Your task to perform on an android device: open chrome privacy settings Image 0: 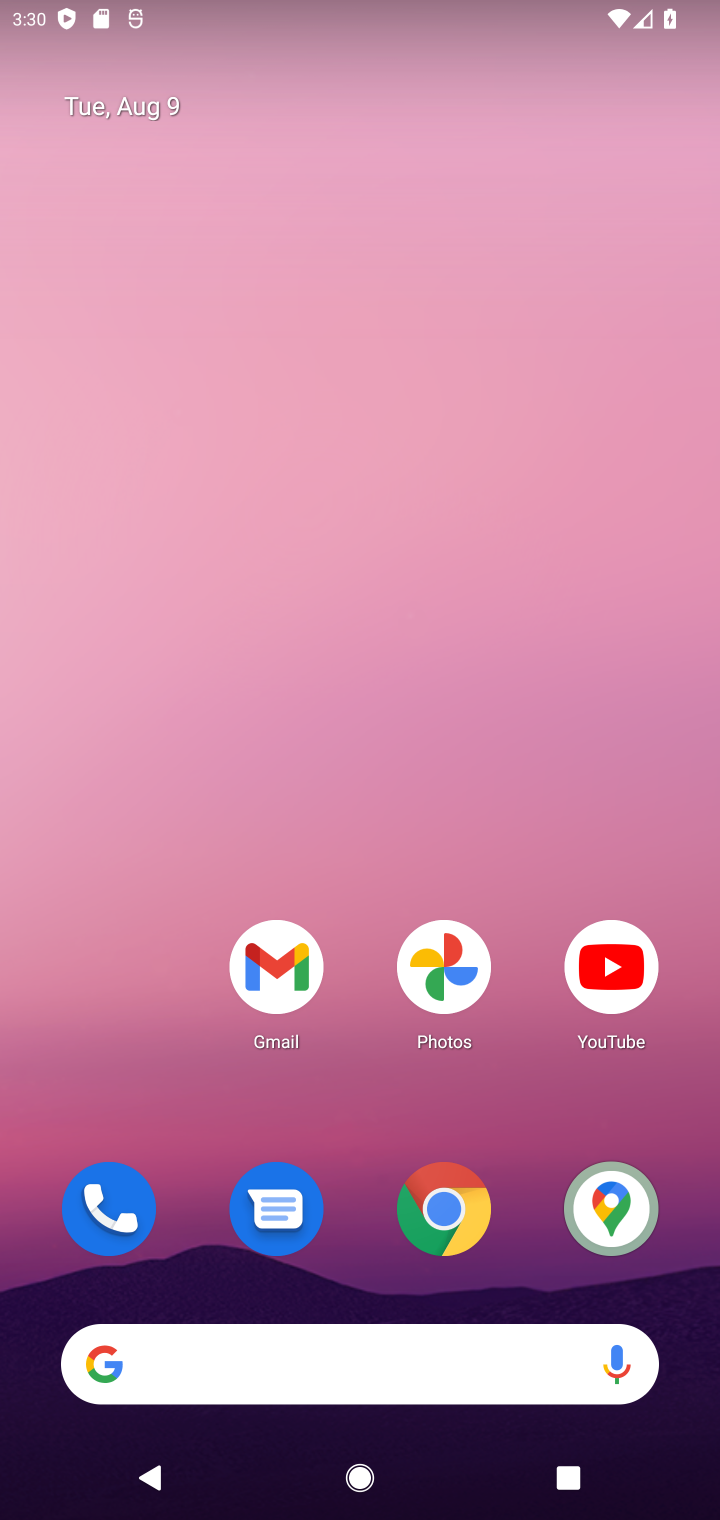
Step 0: click (434, 1204)
Your task to perform on an android device: open chrome privacy settings Image 1: 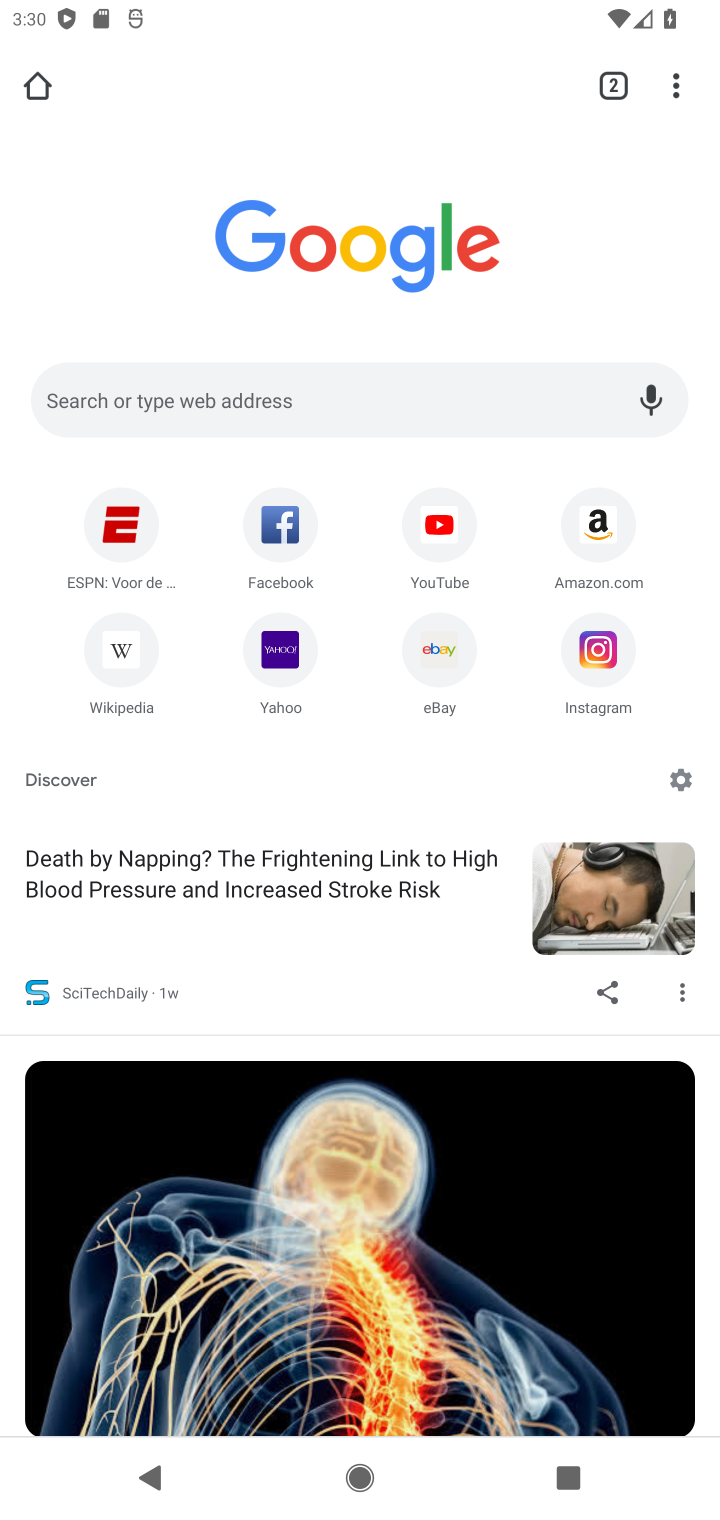
Step 1: drag from (679, 94) to (425, 707)
Your task to perform on an android device: open chrome privacy settings Image 2: 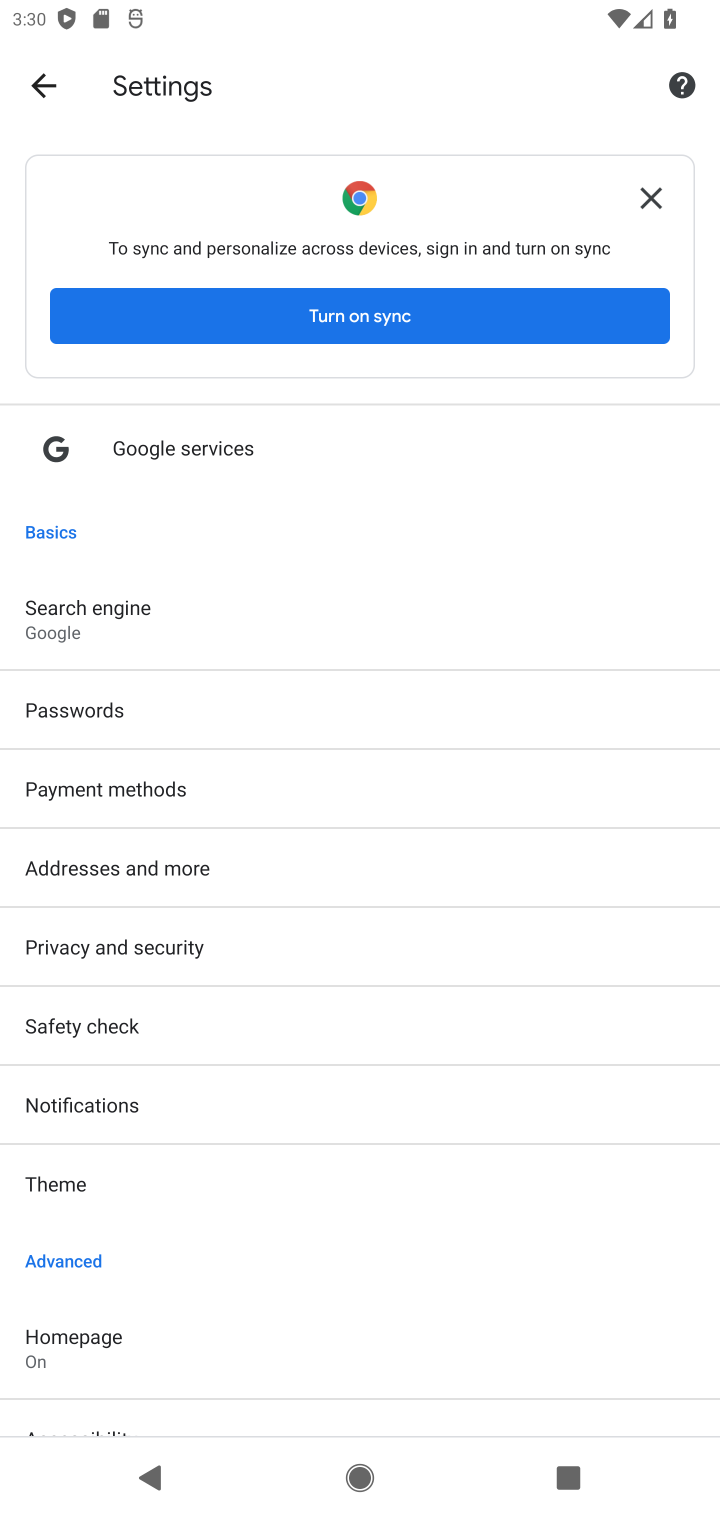
Step 2: drag from (157, 1158) to (109, 830)
Your task to perform on an android device: open chrome privacy settings Image 3: 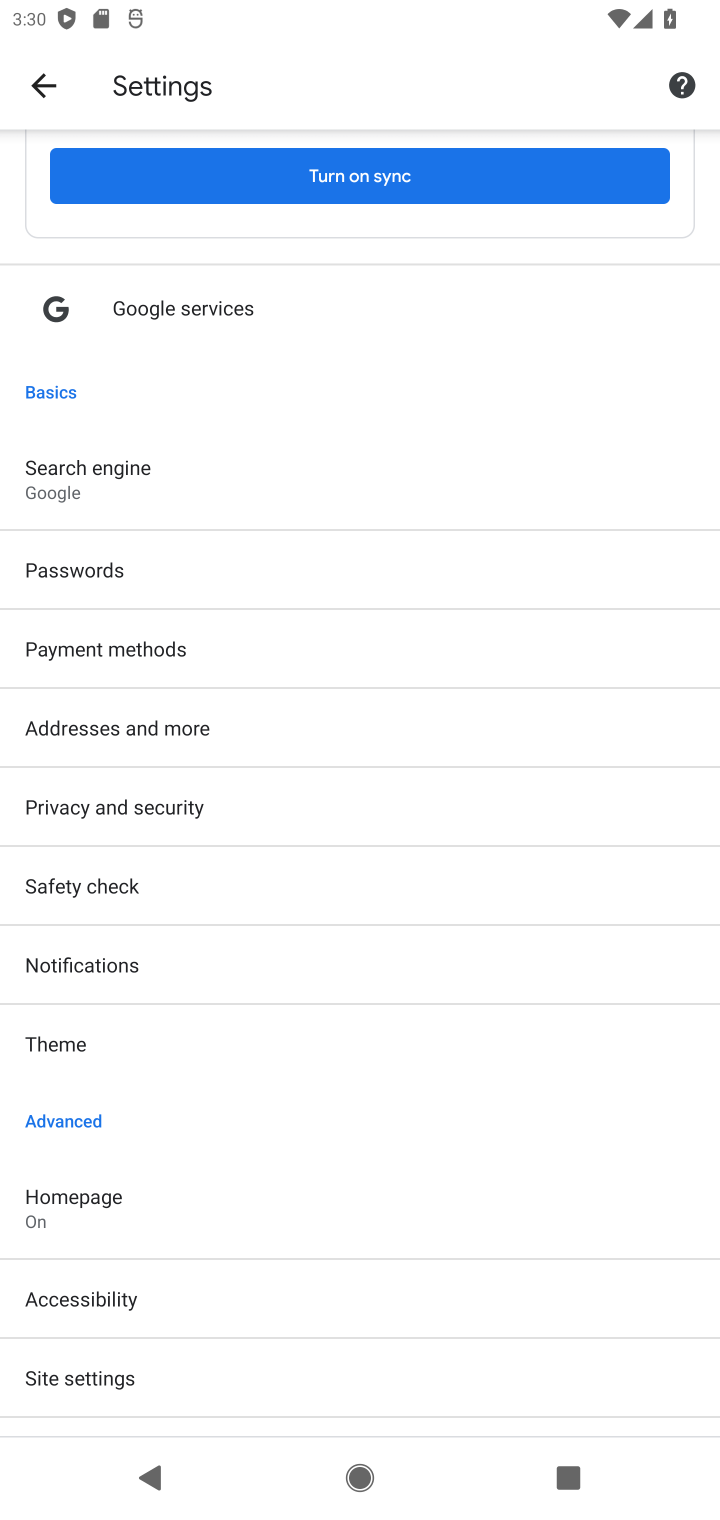
Step 3: click (152, 797)
Your task to perform on an android device: open chrome privacy settings Image 4: 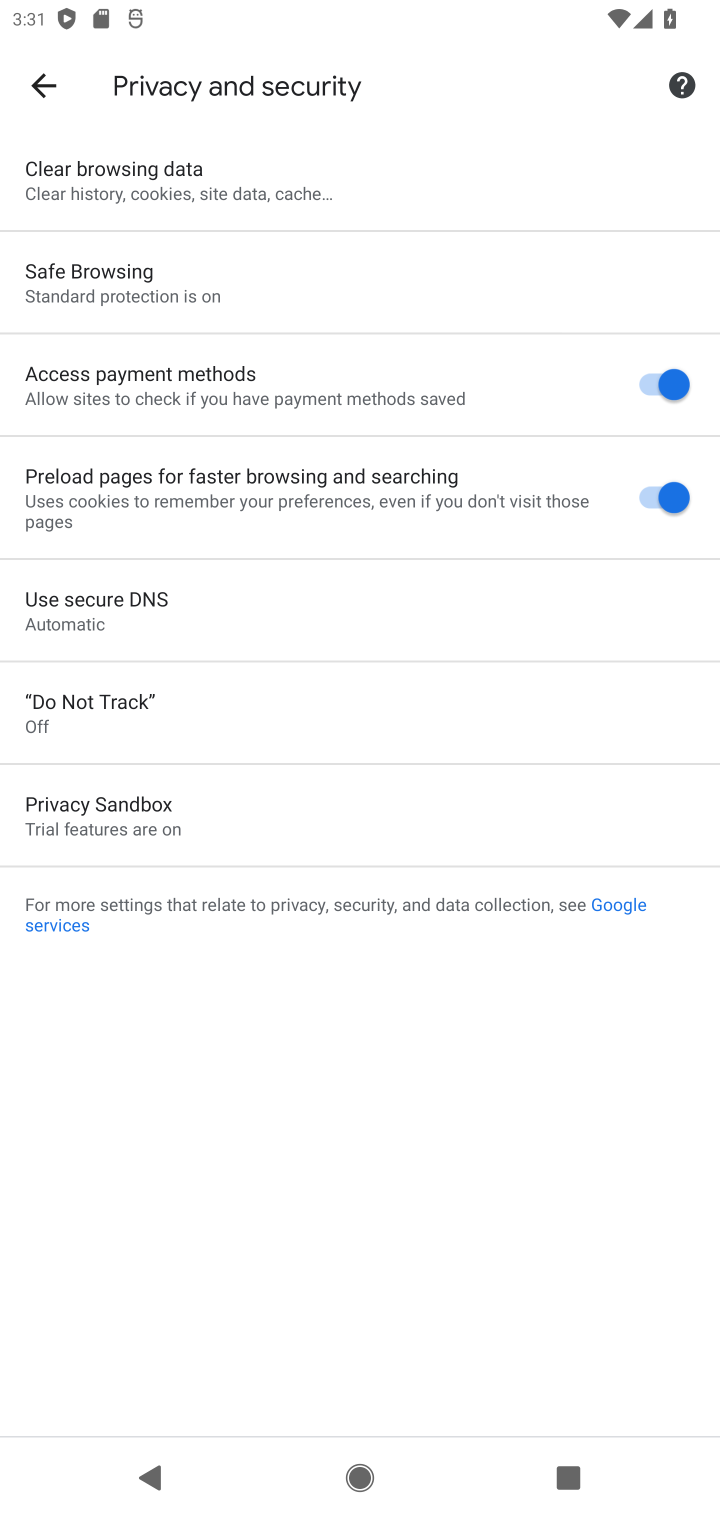
Step 4: task complete